Your task to perform on an android device: toggle notification dots Image 0: 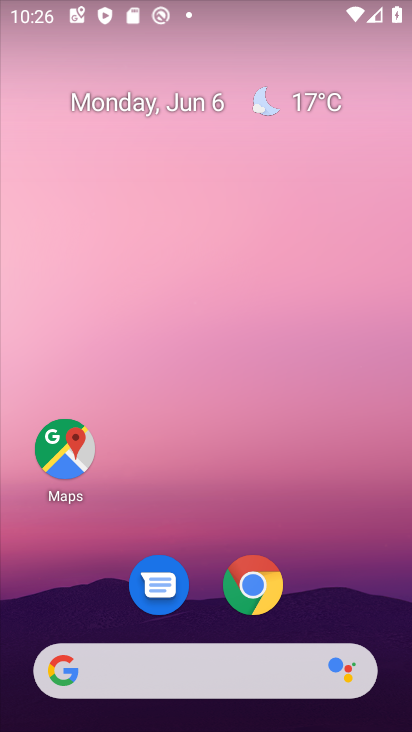
Step 0: drag from (225, 500) to (207, 93)
Your task to perform on an android device: toggle notification dots Image 1: 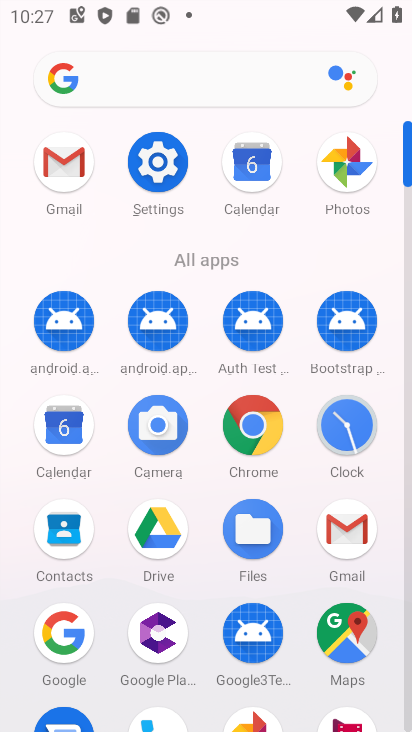
Step 1: click (159, 161)
Your task to perform on an android device: toggle notification dots Image 2: 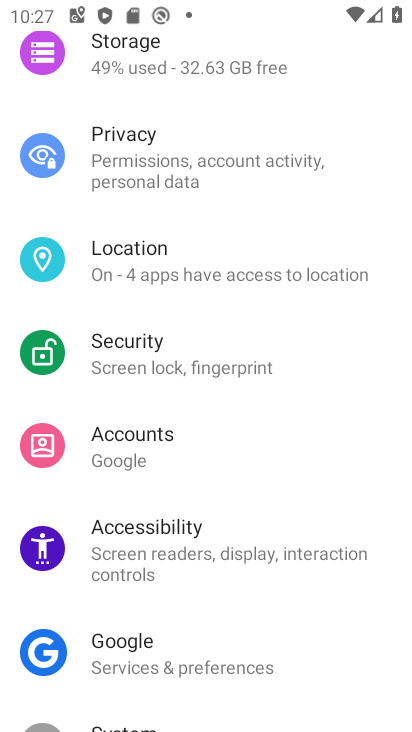
Step 2: drag from (224, 146) to (260, 550)
Your task to perform on an android device: toggle notification dots Image 3: 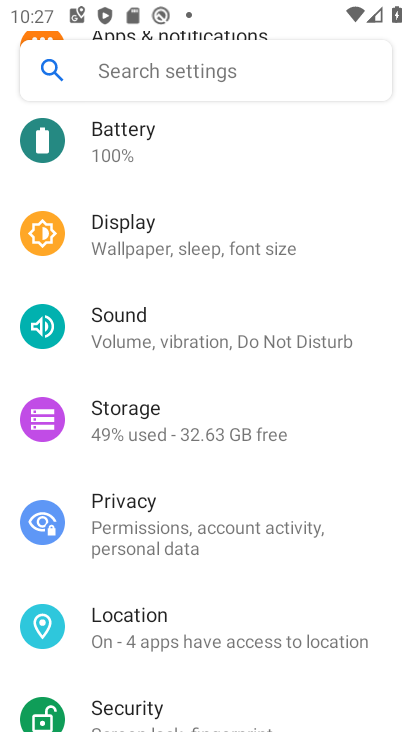
Step 3: drag from (189, 193) to (205, 544)
Your task to perform on an android device: toggle notification dots Image 4: 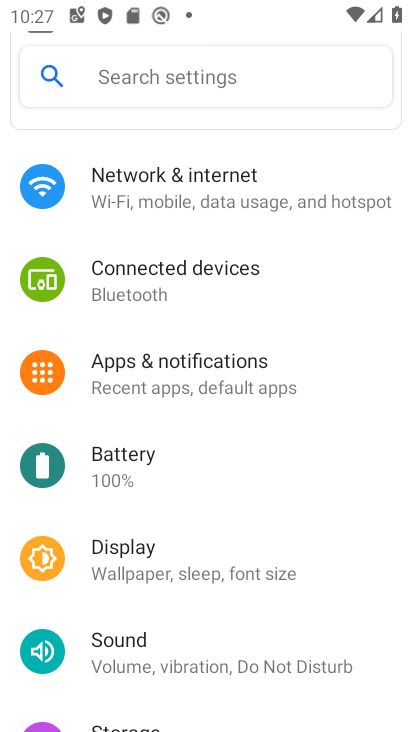
Step 4: click (192, 381)
Your task to perform on an android device: toggle notification dots Image 5: 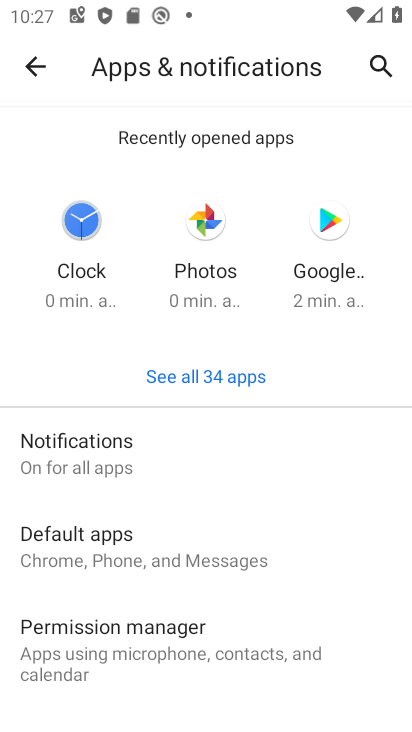
Step 5: click (118, 448)
Your task to perform on an android device: toggle notification dots Image 6: 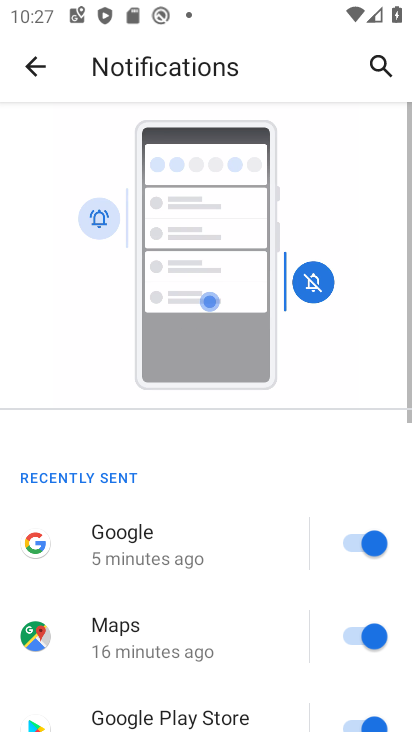
Step 6: drag from (252, 569) to (233, 123)
Your task to perform on an android device: toggle notification dots Image 7: 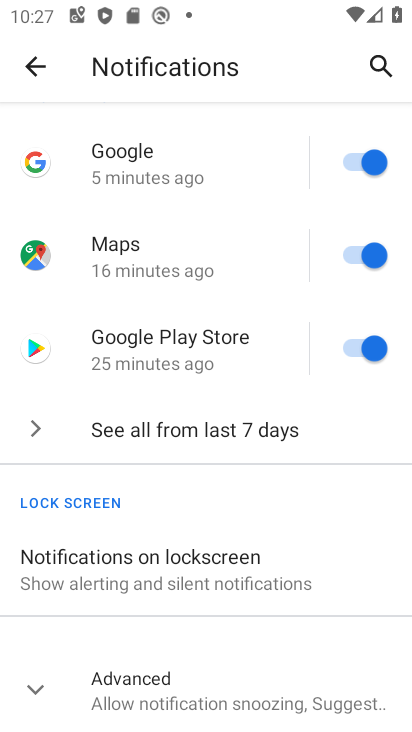
Step 7: click (159, 572)
Your task to perform on an android device: toggle notification dots Image 8: 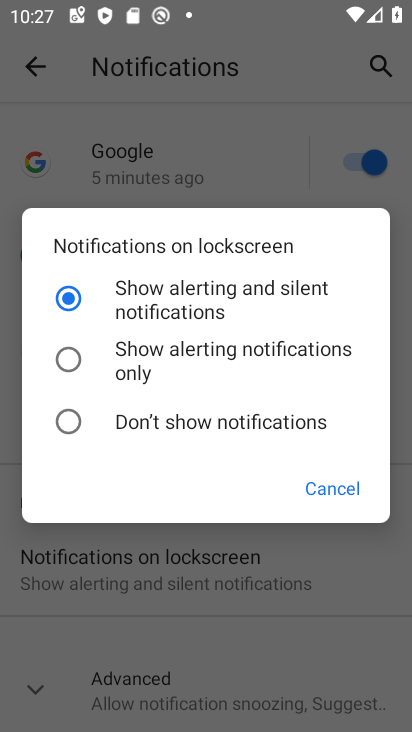
Step 8: click (337, 486)
Your task to perform on an android device: toggle notification dots Image 9: 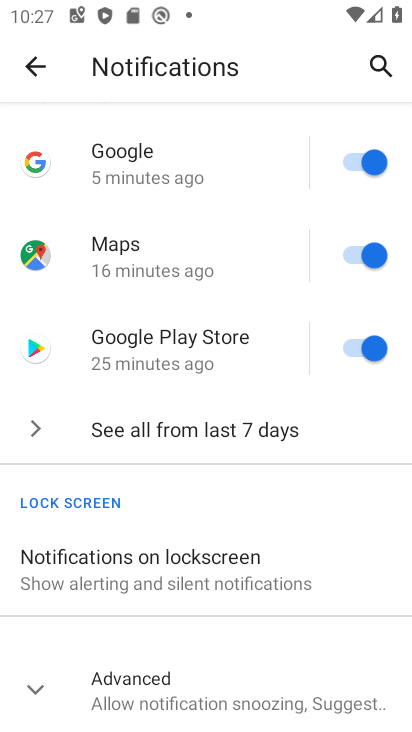
Step 9: click (37, 682)
Your task to perform on an android device: toggle notification dots Image 10: 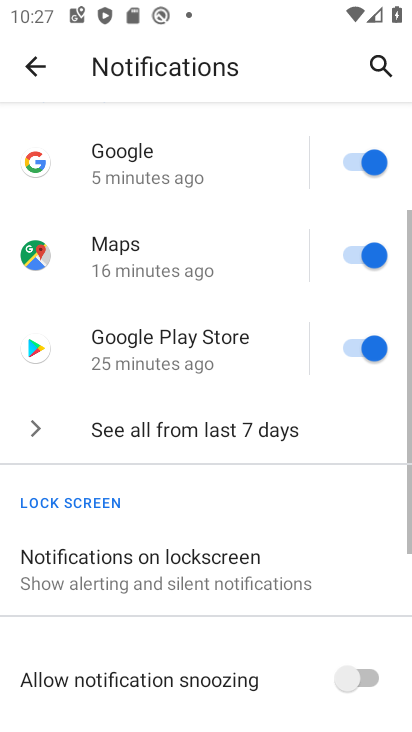
Step 10: drag from (254, 620) to (226, 99)
Your task to perform on an android device: toggle notification dots Image 11: 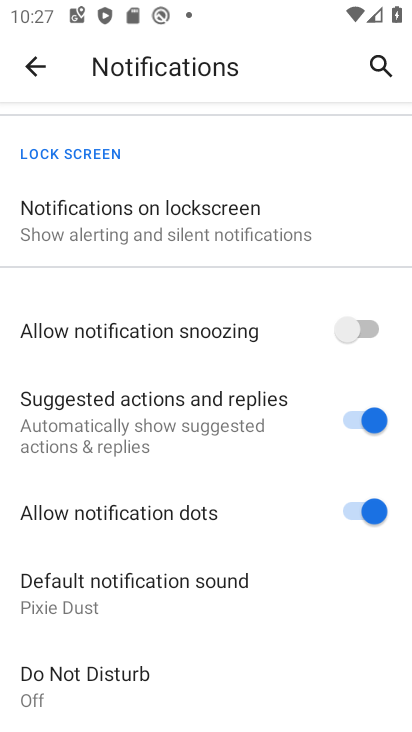
Step 11: click (354, 506)
Your task to perform on an android device: toggle notification dots Image 12: 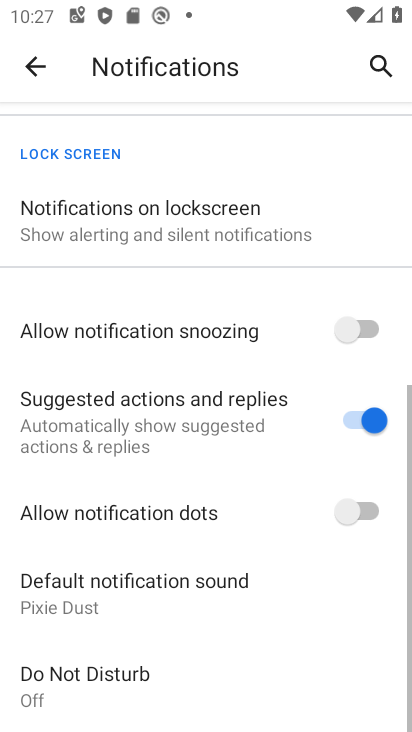
Step 12: task complete